Your task to perform on an android device: change timer sound Image 0: 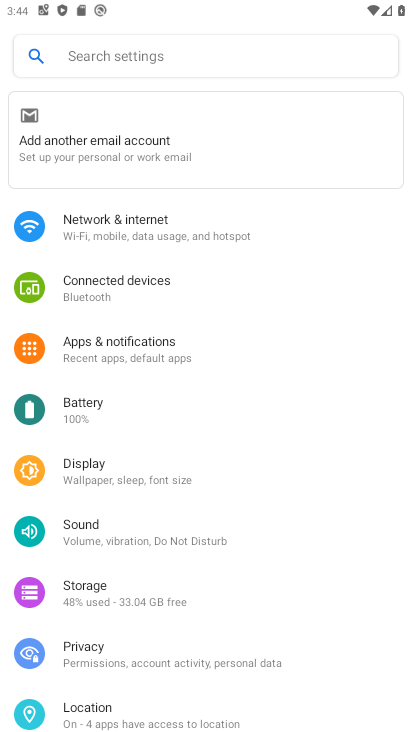
Step 0: click (133, 529)
Your task to perform on an android device: change timer sound Image 1: 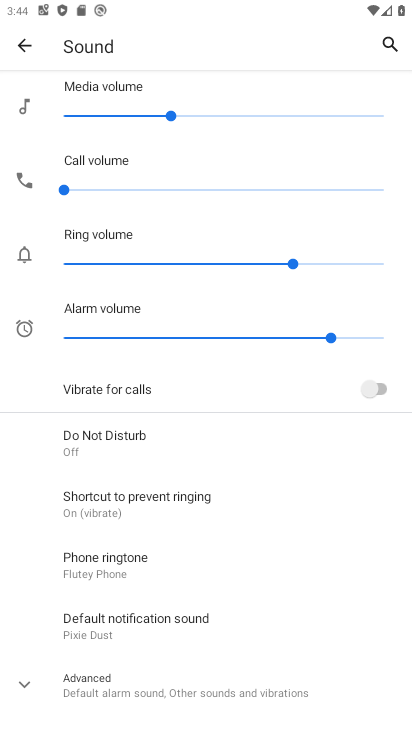
Step 1: task complete